Your task to perform on an android device: Turn on the flashlight Image 0: 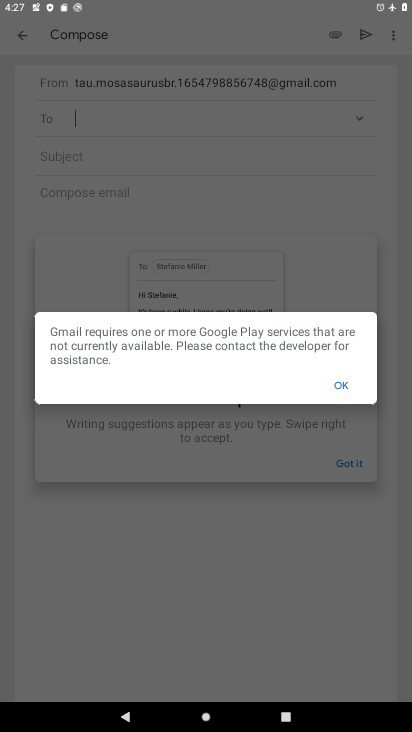
Step 0: press home button
Your task to perform on an android device: Turn on the flashlight Image 1: 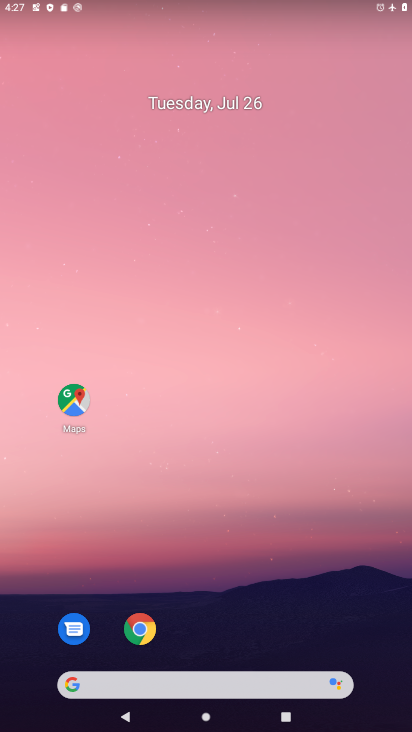
Step 1: drag from (240, 722) to (258, 100)
Your task to perform on an android device: Turn on the flashlight Image 2: 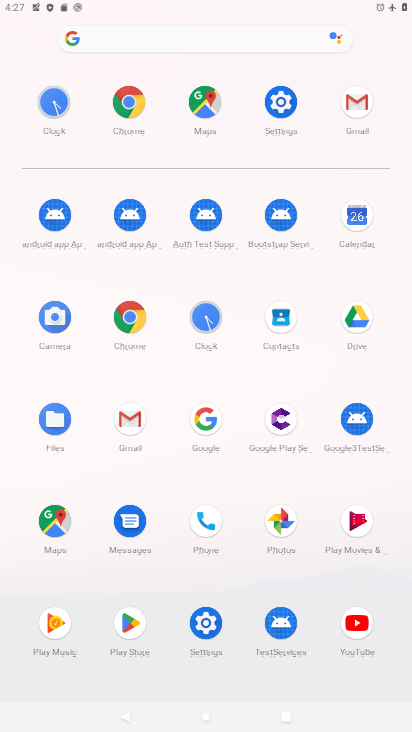
Step 2: click (273, 93)
Your task to perform on an android device: Turn on the flashlight Image 3: 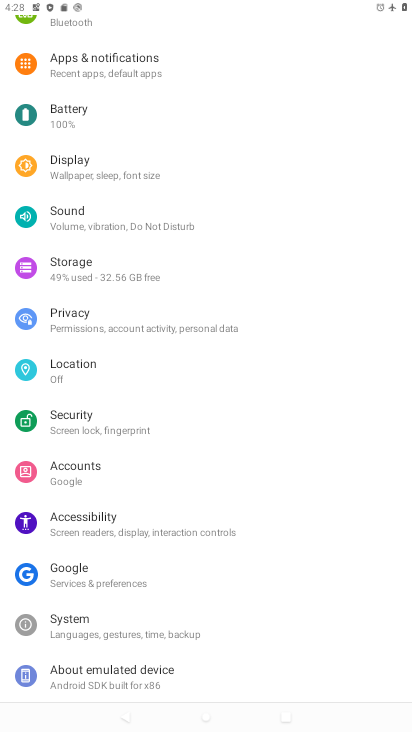
Step 3: task complete